Your task to perform on an android device: Open the calendar and show me this week's events? Image 0: 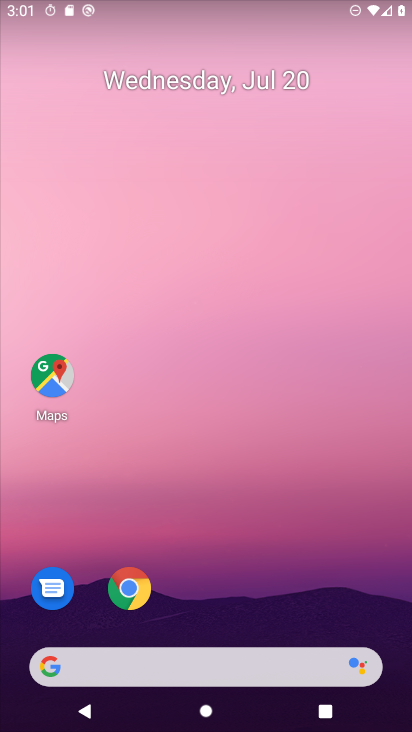
Step 0: drag from (257, 610) to (162, 17)
Your task to perform on an android device: Open the calendar and show me this week's events? Image 1: 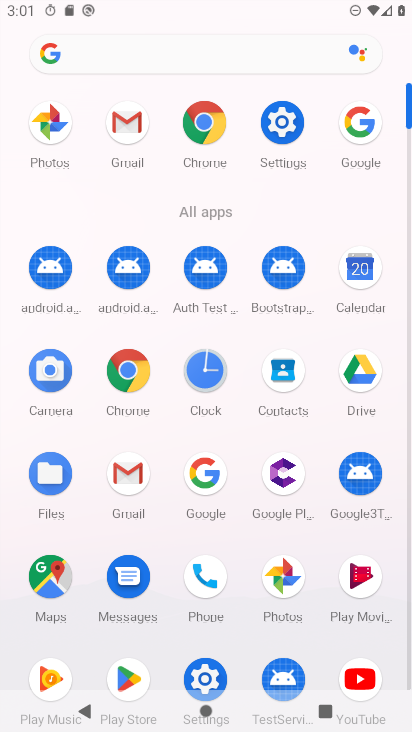
Step 1: click (378, 258)
Your task to perform on an android device: Open the calendar and show me this week's events? Image 2: 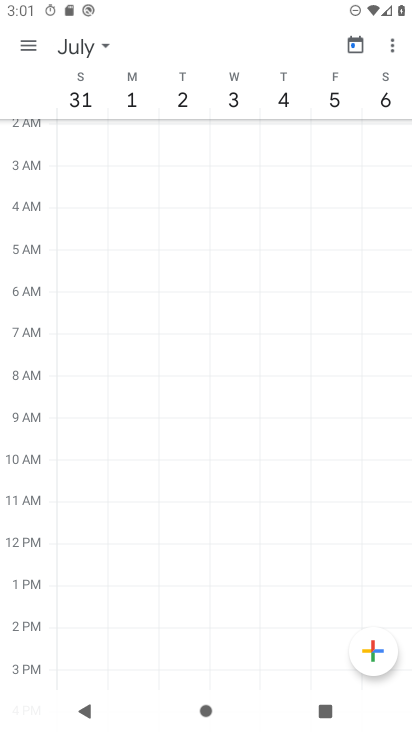
Step 2: click (362, 40)
Your task to perform on an android device: Open the calendar and show me this week's events? Image 3: 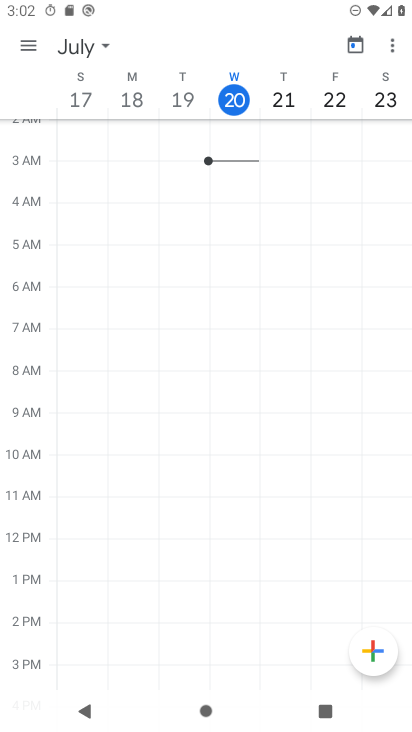
Step 3: task complete